Your task to perform on an android device: delete a single message in the gmail app Image 0: 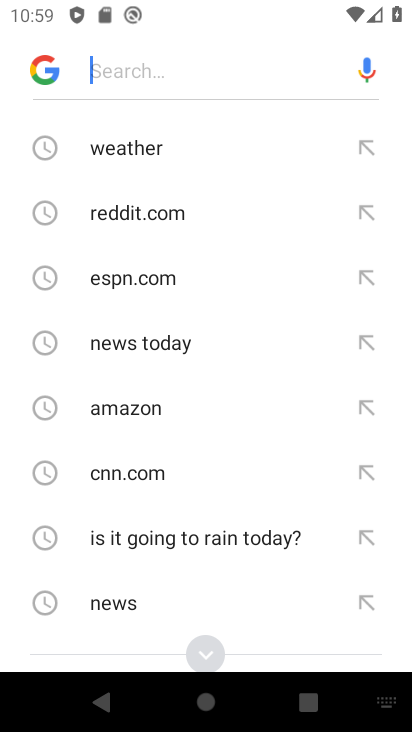
Step 0: press home button
Your task to perform on an android device: delete a single message in the gmail app Image 1: 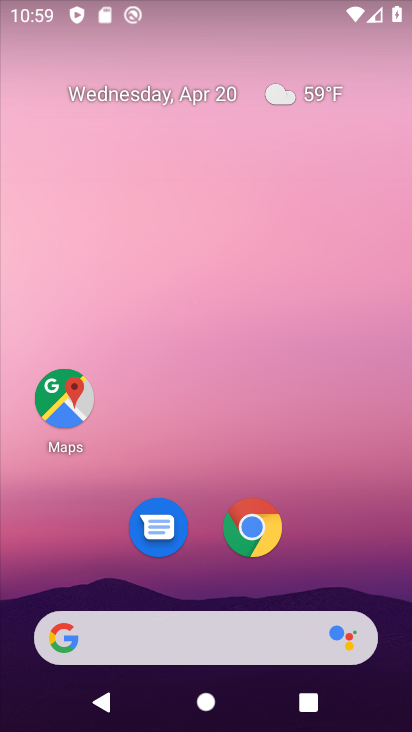
Step 1: drag from (202, 544) to (292, 69)
Your task to perform on an android device: delete a single message in the gmail app Image 2: 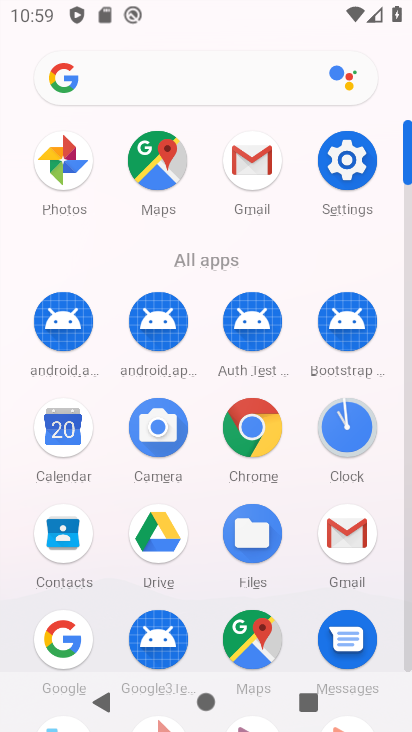
Step 2: click (259, 159)
Your task to perform on an android device: delete a single message in the gmail app Image 3: 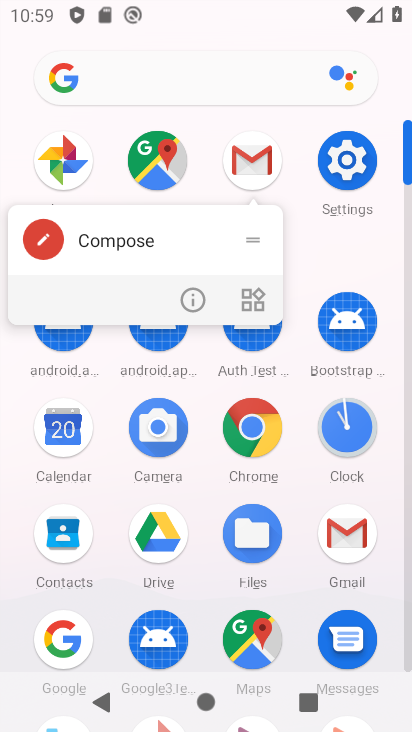
Step 3: click (254, 162)
Your task to perform on an android device: delete a single message in the gmail app Image 4: 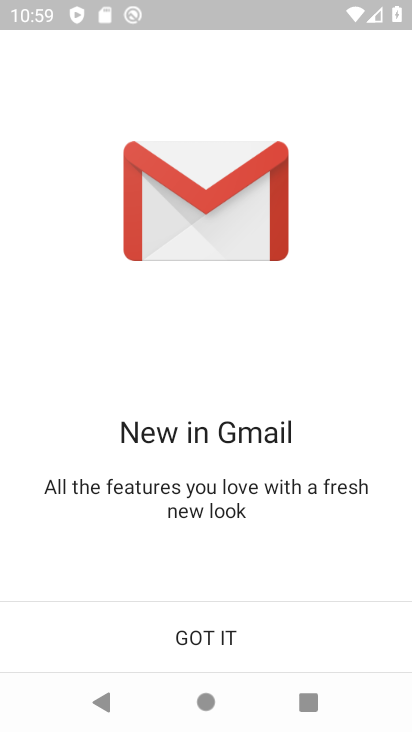
Step 4: click (216, 646)
Your task to perform on an android device: delete a single message in the gmail app Image 5: 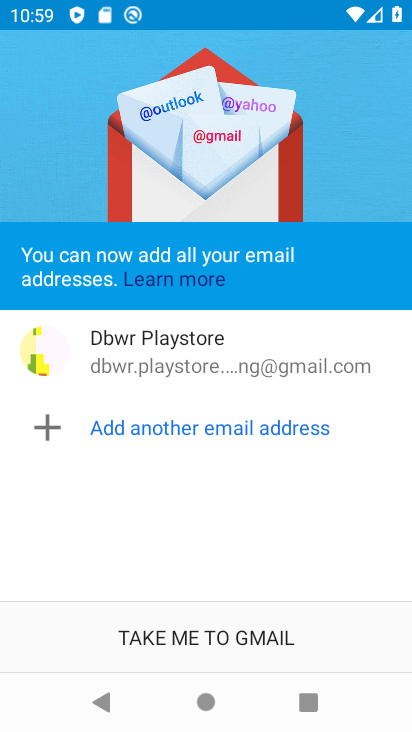
Step 5: click (216, 646)
Your task to perform on an android device: delete a single message in the gmail app Image 6: 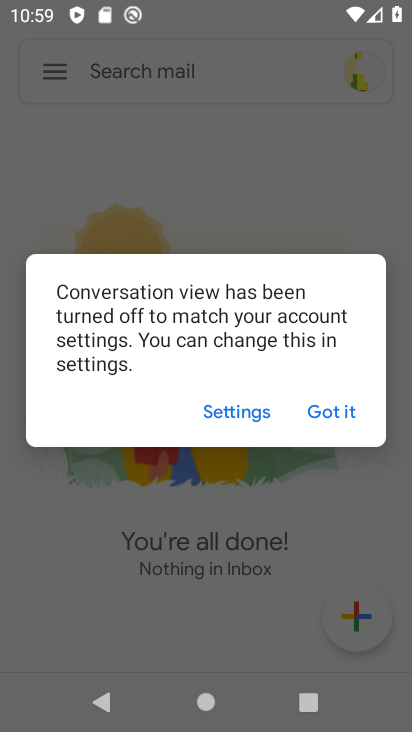
Step 6: click (317, 420)
Your task to perform on an android device: delete a single message in the gmail app Image 7: 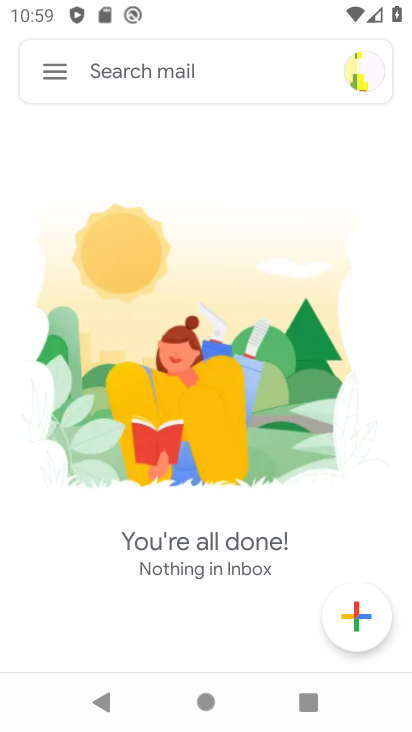
Step 7: task complete